Your task to perform on an android device: open chrome and create a bookmark for the current page Image 0: 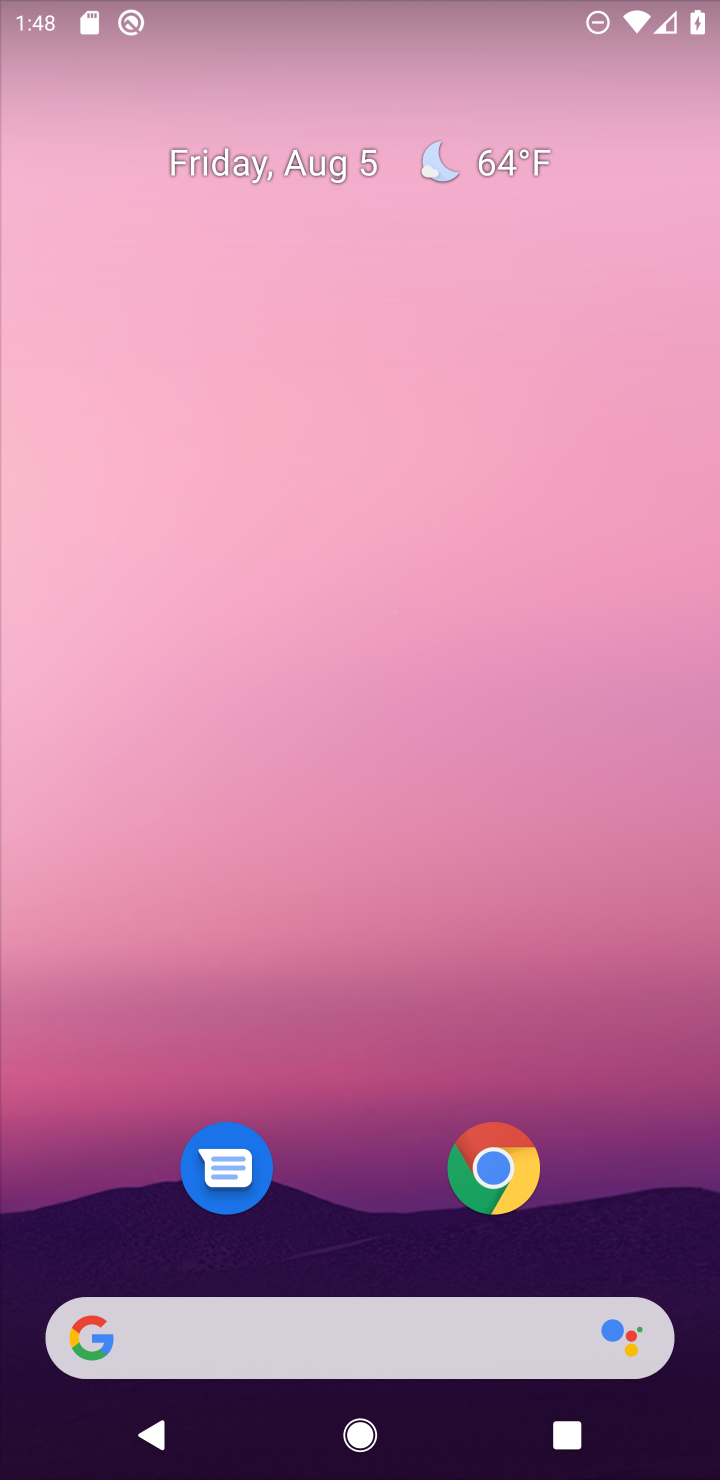
Step 0: drag from (637, 1168) to (221, 110)
Your task to perform on an android device: open chrome and create a bookmark for the current page Image 1: 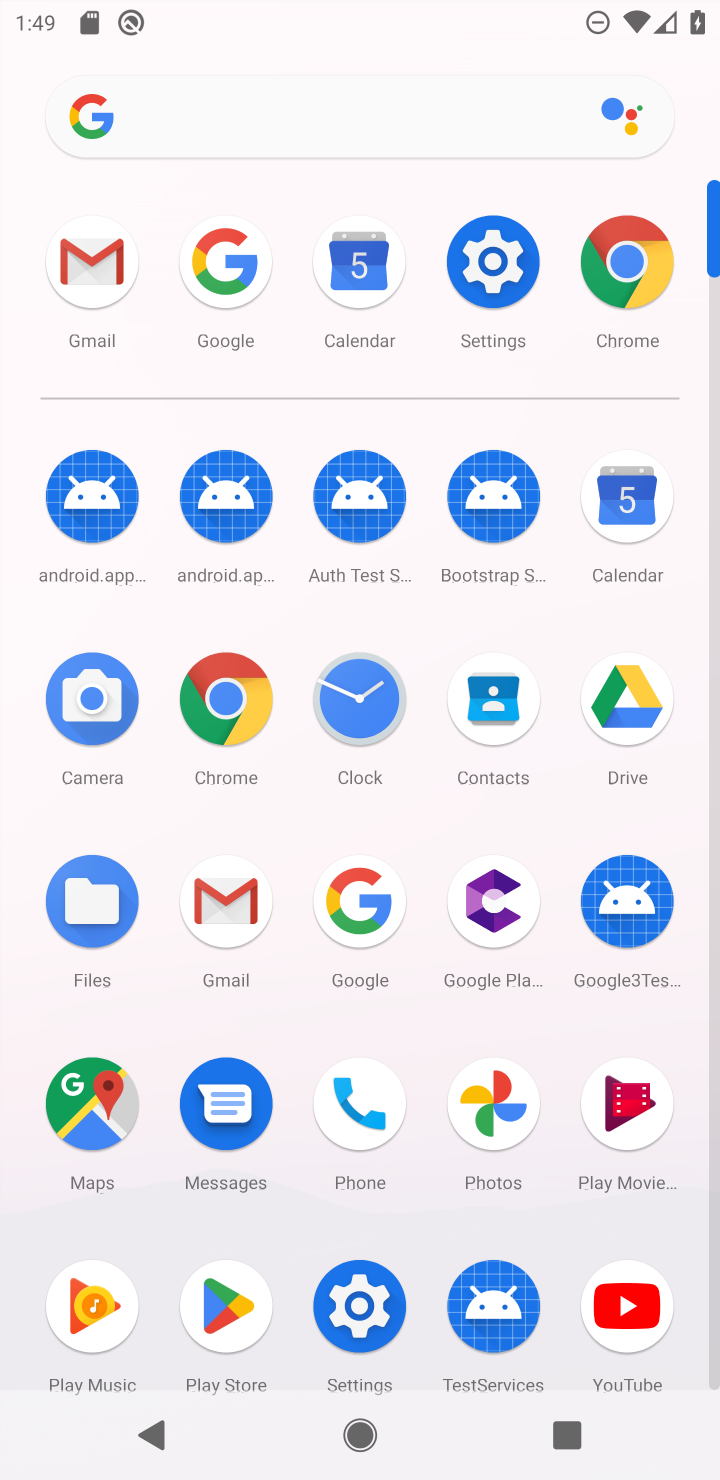
Step 1: click (237, 691)
Your task to perform on an android device: open chrome and create a bookmark for the current page Image 2: 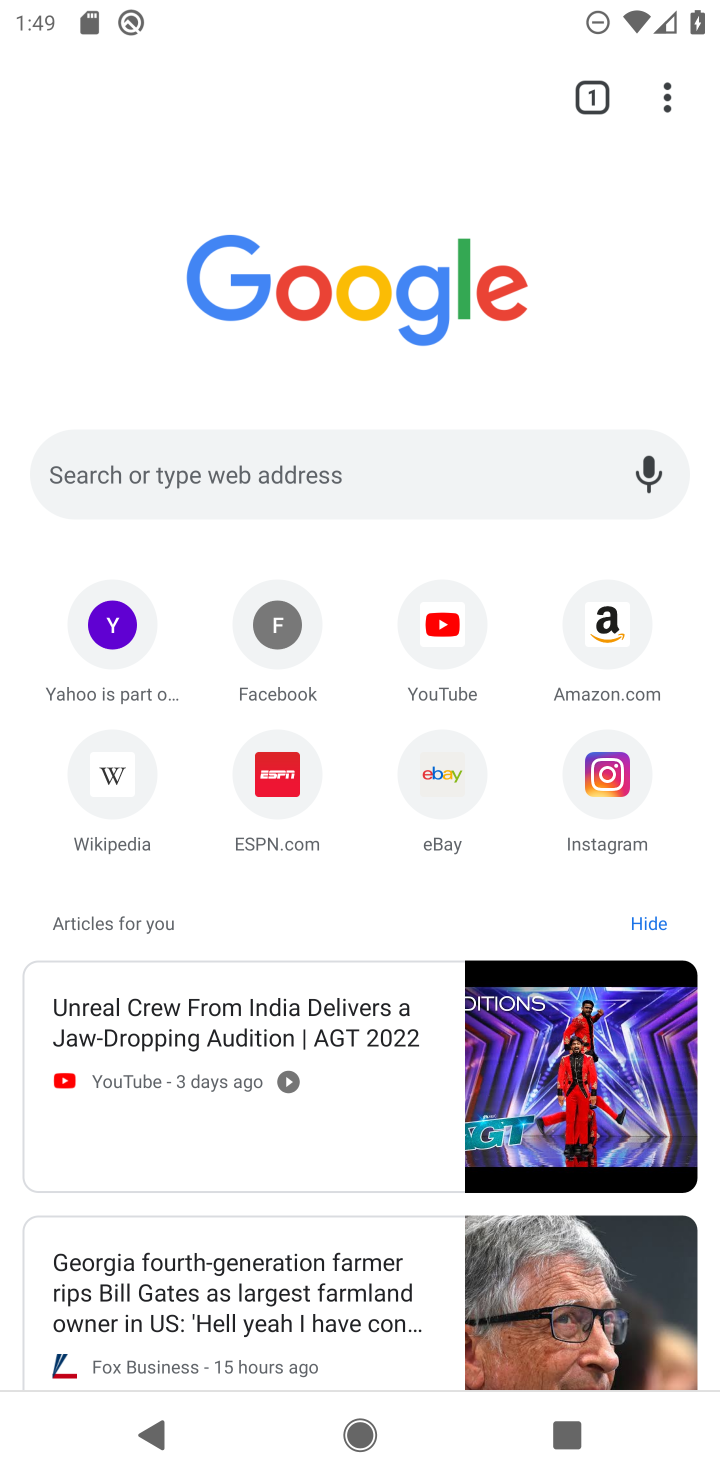
Step 2: click (671, 93)
Your task to perform on an android device: open chrome and create a bookmark for the current page Image 3: 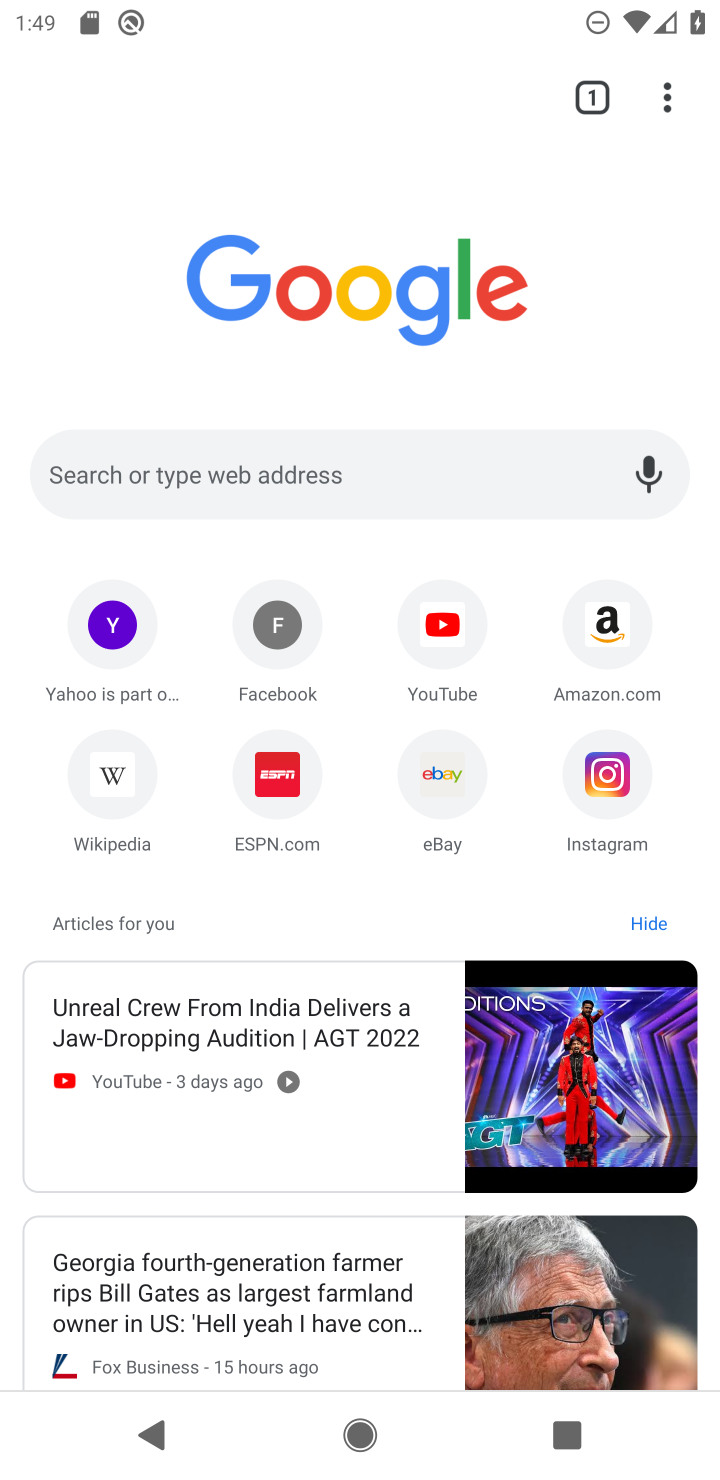
Step 3: click (671, 93)
Your task to perform on an android device: open chrome and create a bookmark for the current page Image 4: 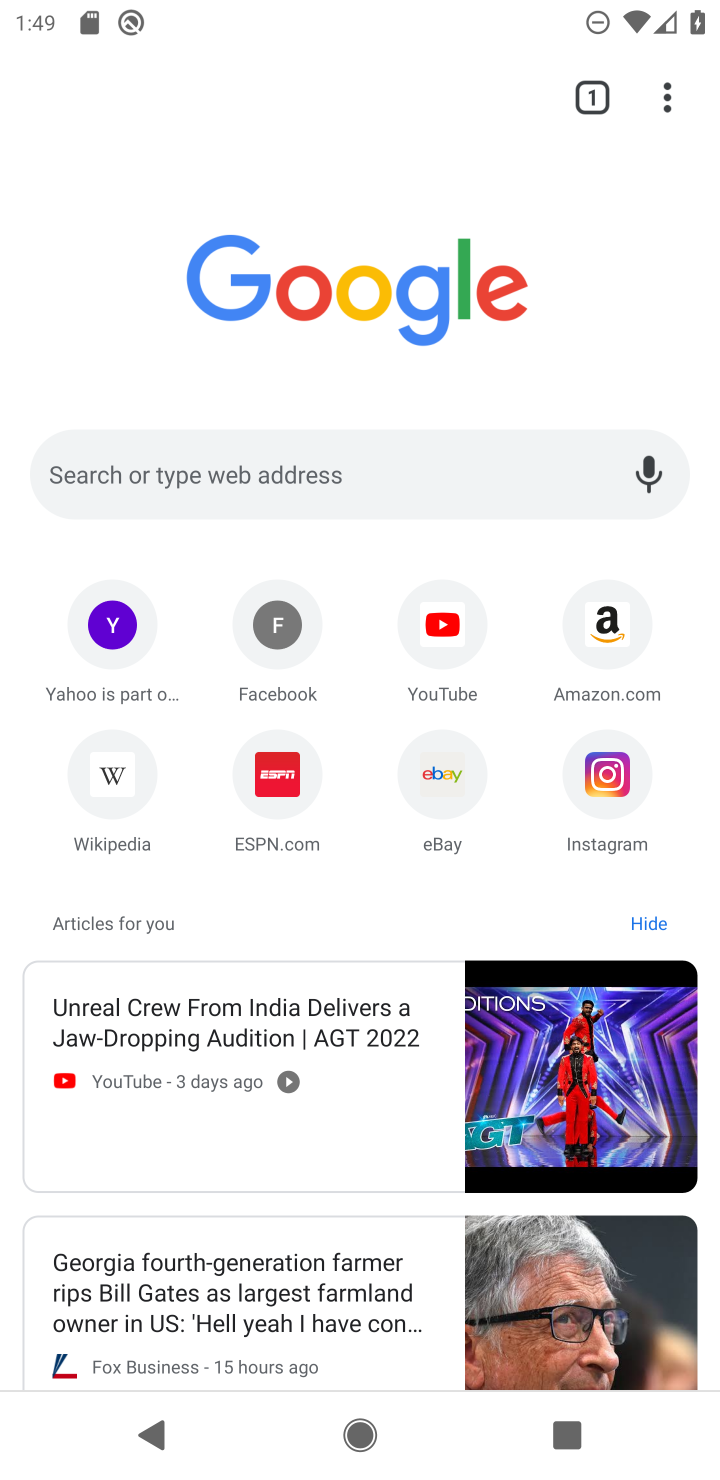
Step 4: click (662, 83)
Your task to perform on an android device: open chrome and create a bookmark for the current page Image 5: 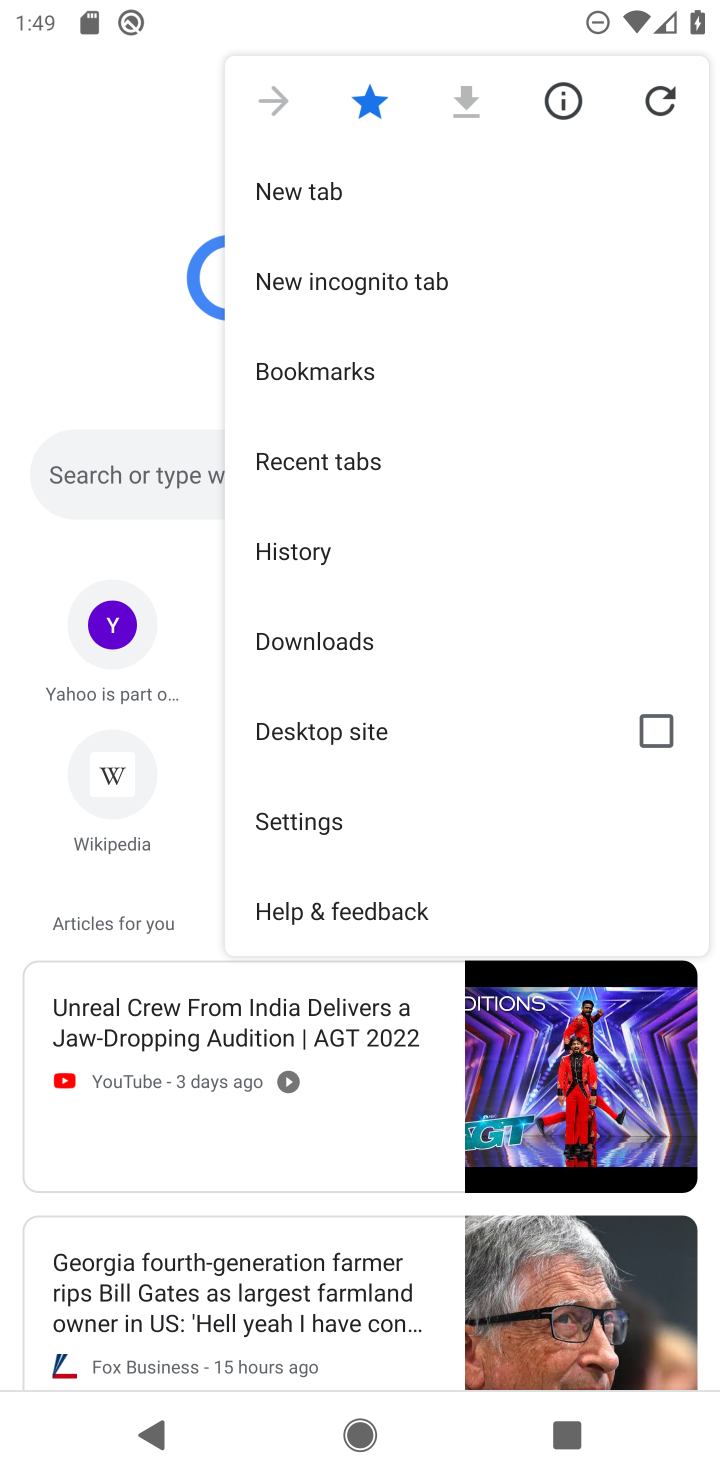
Step 5: task complete